Your task to perform on an android device: open app "Speedtest by Ookla" (install if not already installed) Image 0: 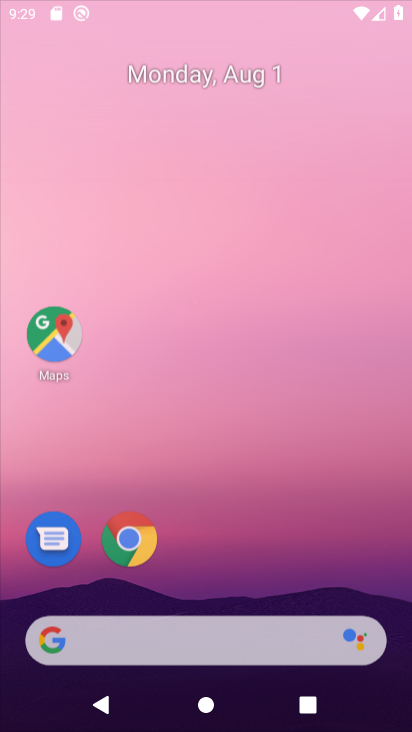
Step 0: press home button
Your task to perform on an android device: open app "Speedtest by Ookla" (install if not already installed) Image 1: 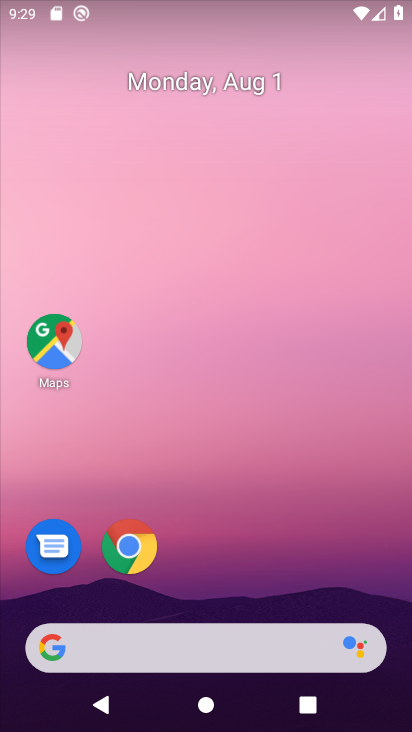
Step 1: drag from (215, 609) to (233, 14)
Your task to perform on an android device: open app "Speedtest by Ookla" (install if not already installed) Image 2: 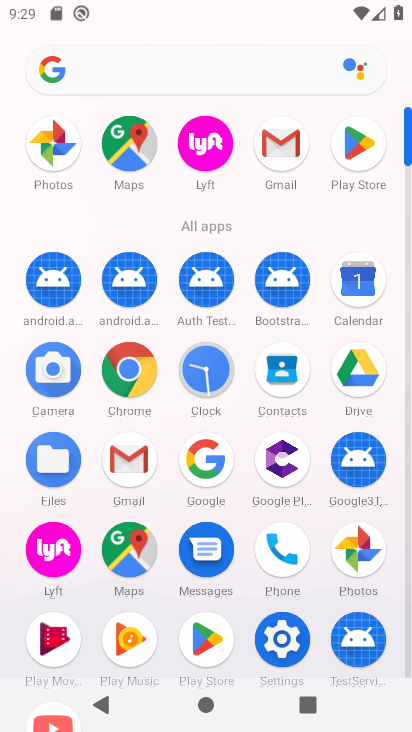
Step 2: click (351, 136)
Your task to perform on an android device: open app "Speedtest by Ookla" (install if not already installed) Image 3: 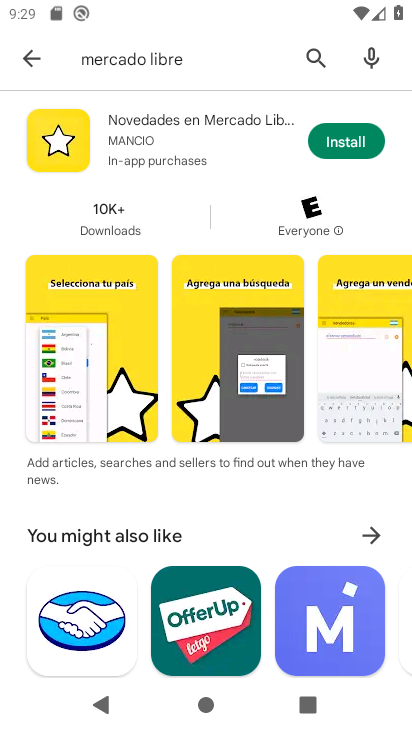
Step 3: click (317, 59)
Your task to perform on an android device: open app "Speedtest by Ookla" (install if not already installed) Image 4: 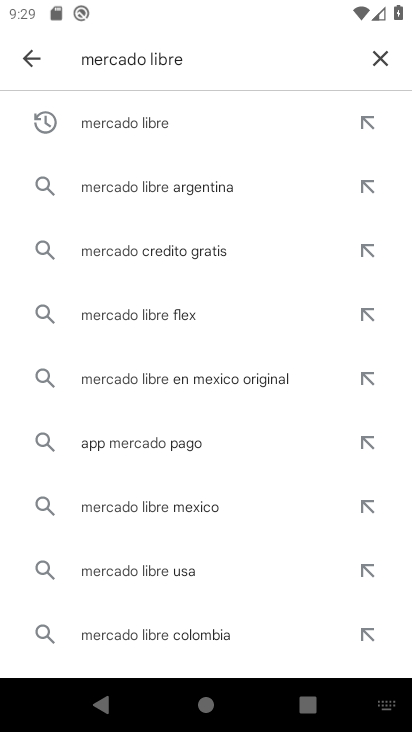
Step 4: click (378, 66)
Your task to perform on an android device: open app "Speedtest by Ookla" (install if not already installed) Image 5: 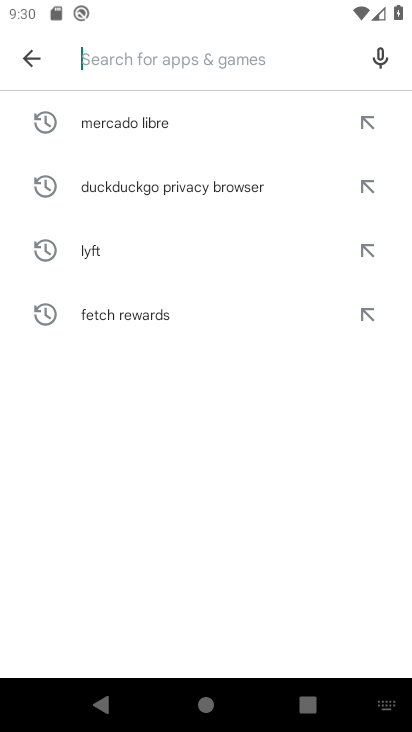
Step 5: type "Speedtest by Ookla"
Your task to perform on an android device: open app "Speedtest by Ookla" (install if not already installed) Image 6: 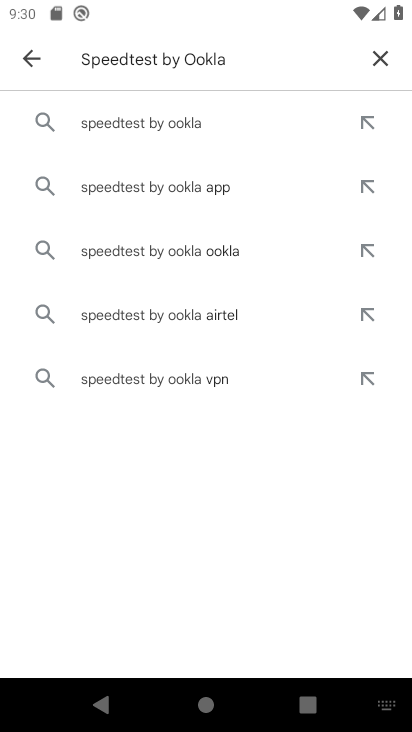
Step 6: click (212, 120)
Your task to perform on an android device: open app "Speedtest by Ookla" (install if not already installed) Image 7: 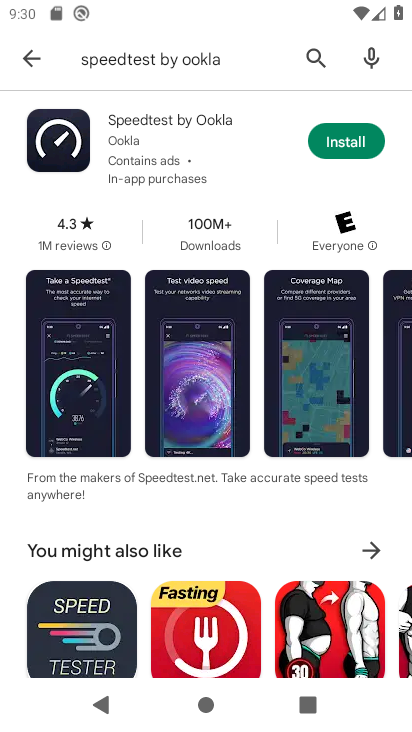
Step 7: click (344, 133)
Your task to perform on an android device: open app "Speedtest by Ookla" (install if not already installed) Image 8: 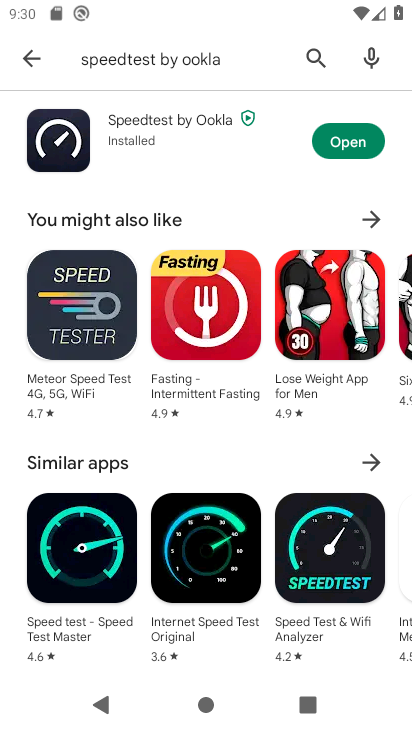
Step 8: click (350, 140)
Your task to perform on an android device: open app "Speedtest by Ookla" (install if not already installed) Image 9: 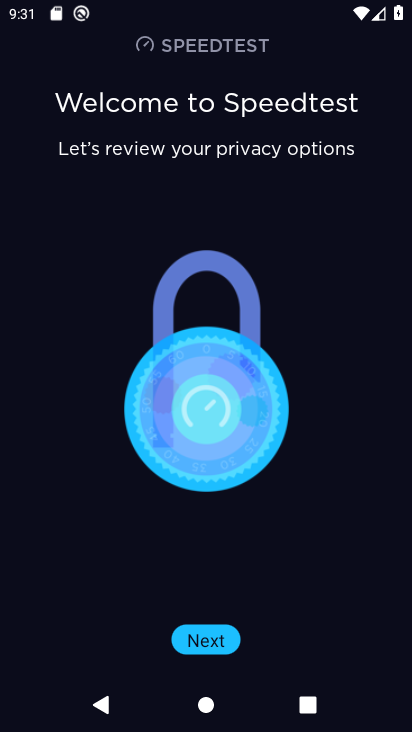
Step 9: click (193, 638)
Your task to perform on an android device: open app "Speedtest by Ookla" (install if not already installed) Image 10: 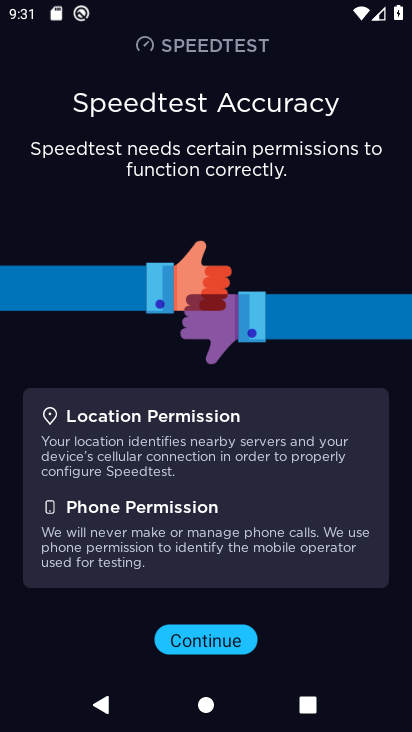
Step 10: click (202, 647)
Your task to perform on an android device: open app "Speedtest by Ookla" (install if not already installed) Image 11: 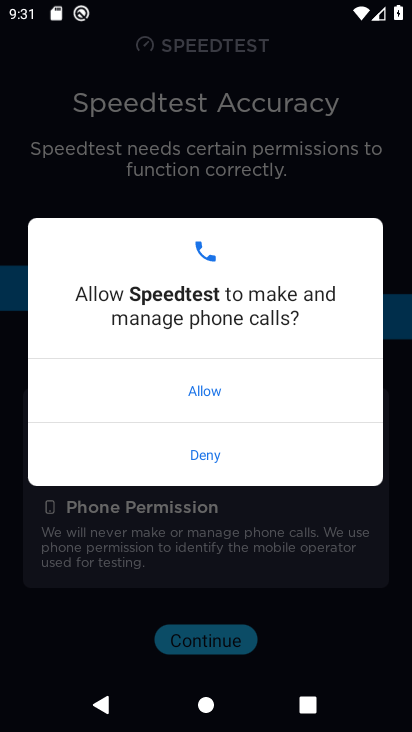
Step 11: click (184, 372)
Your task to perform on an android device: open app "Speedtest by Ookla" (install if not already installed) Image 12: 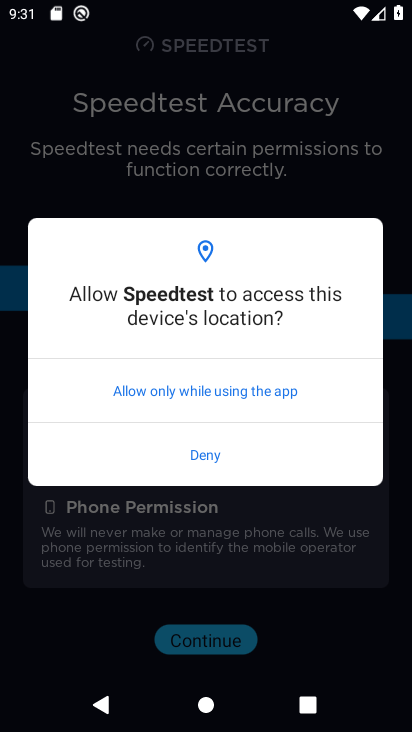
Step 12: click (212, 409)
Your task to perform on an android device: open app "Speedtest by Ookla" (install if not already installed) Image 13: 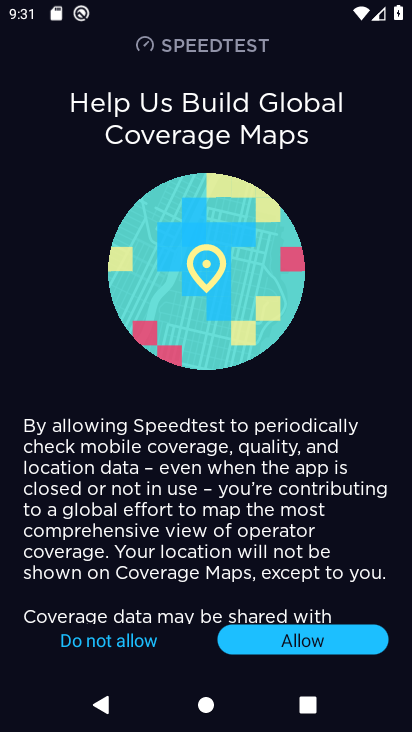
Step 13: click (303, 633)
Your task to perform on an android device: open app "Speedtest by Ookla" (install if not already installed) Image 14: 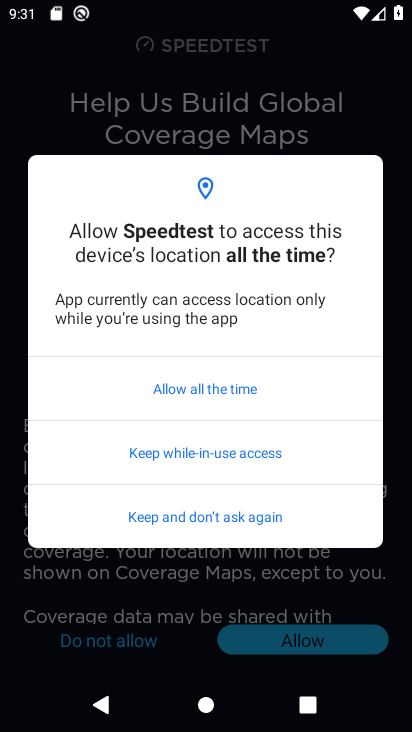
Step 14: click (188, 387)
Your task to perform on an android device: open app "Speedtest by Ookla" (install if not already installed) Image 15: 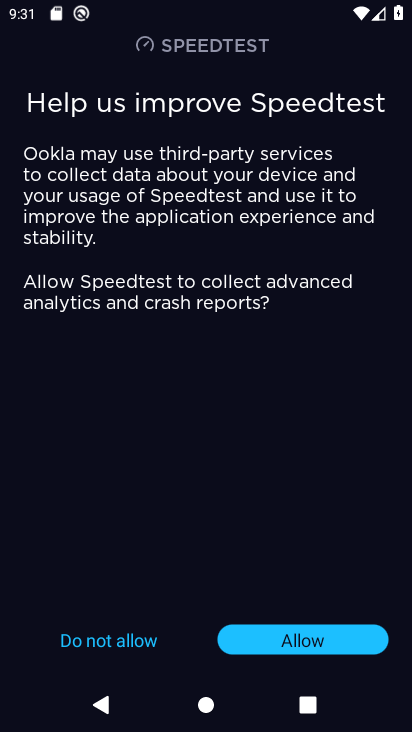
Step 15: click (302, 637)
Your task to perform on an android device: open app "Speedtest by Ookla" (install if not already installed) Image 16: 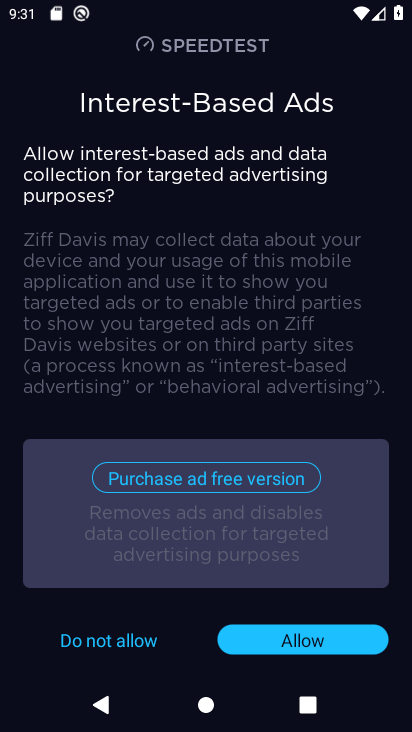
Step 16: click (302, 637)
Your task to perform on an android device: open app "Speedtest by Ookla" (install if not already installed) Image 17: 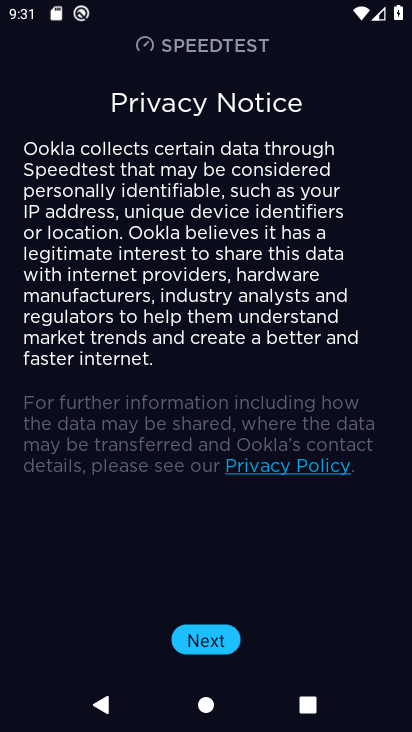
Step 17: click (206, 637)
Your task to perform on an android device: open app "Speedtest by Ookla" (install if not already installed) Image 18: 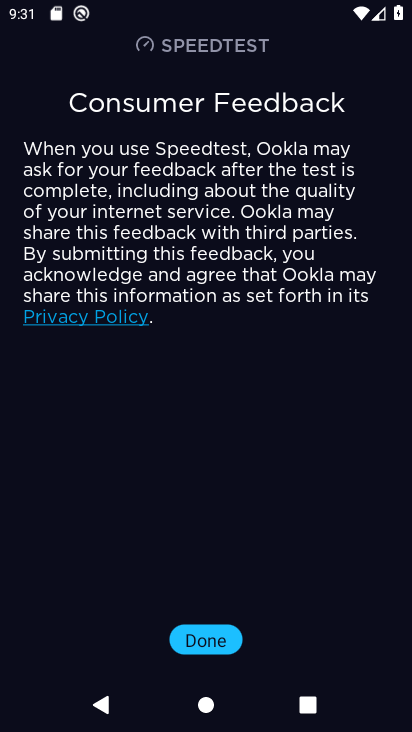
Step 18: click (205, 639)
Your task to perform on an android device: open app "Speedtest by Ookla" (install if not already installed) Image 19: 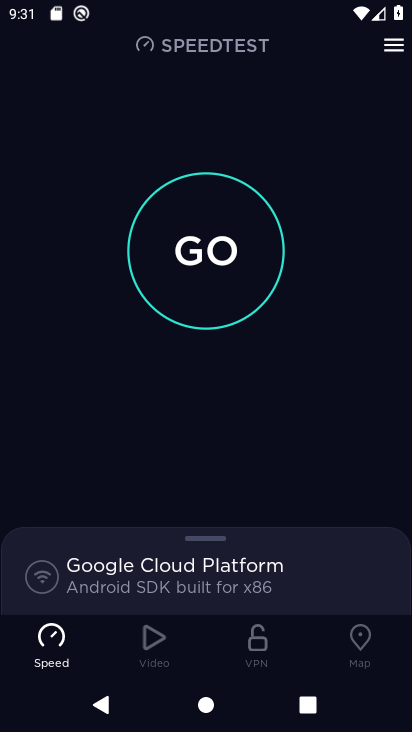
Step 19: task complete